Your task to perform on an android device: Show me popular games on the Play Store Image 0: 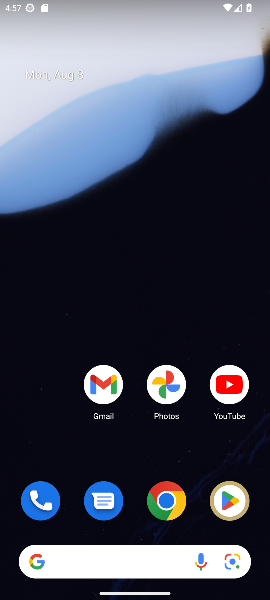
Step 0: click (218, 506)
Your task to perform on an android device: Show me popular games on the Play Store Image 1: 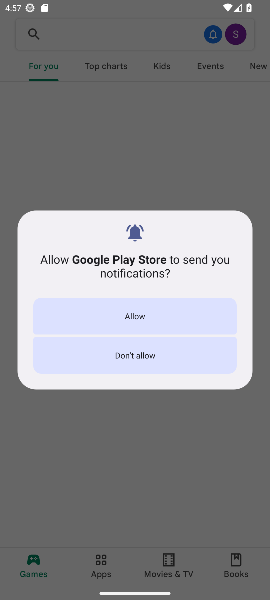
Step 1: click (120, 313)
Your task to perform on an android device: Show me popular games on the Play Store Image 2: 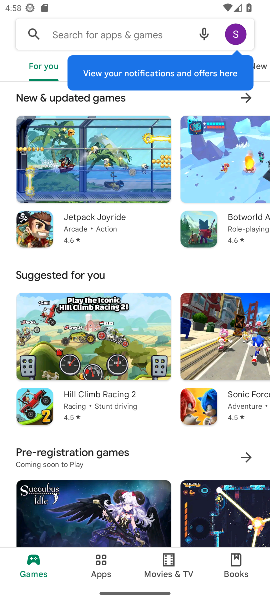
Step 2: click (67, 33)
Your task to perform on an android device: Show me popular games on the Play Store Image 3: 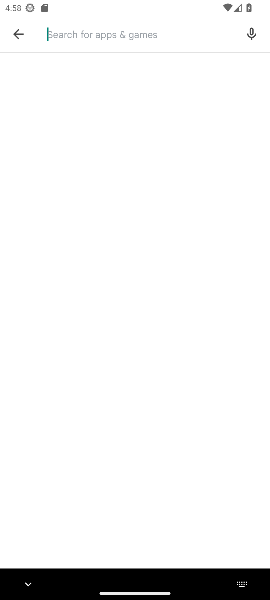
Step 3: type "popular games"
Your task to perform on an android device: Show me popular games on the Play Store Image 4: 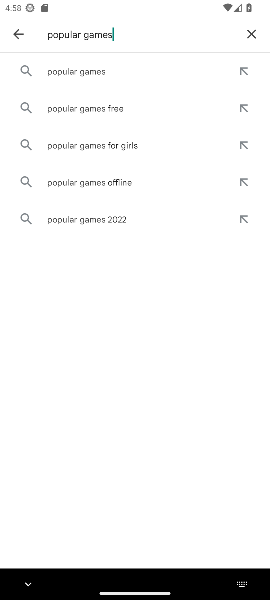
Step 4: click (92, 69)
Your task to perform on an android device: Show me popular games on the Play Store Image 5: 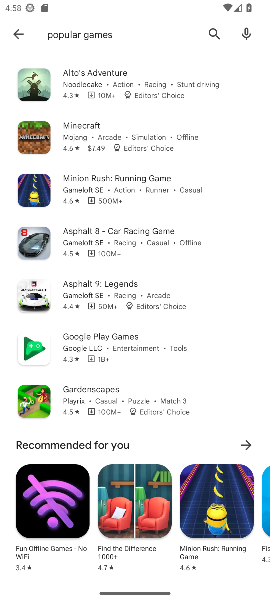
Step 5: task complete